Your task to perform on an android device: What's the weather going to be tomorrow? Image 0: 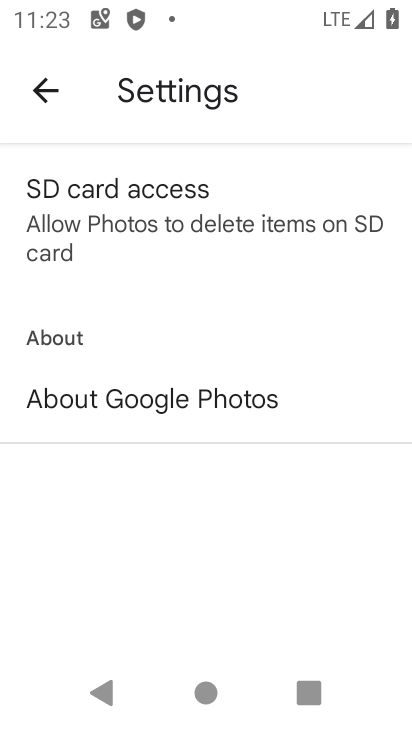
Step 0: click (34, 84)
Your task to perform on an android device: What's the weather going to be tomorrow? Image 1: 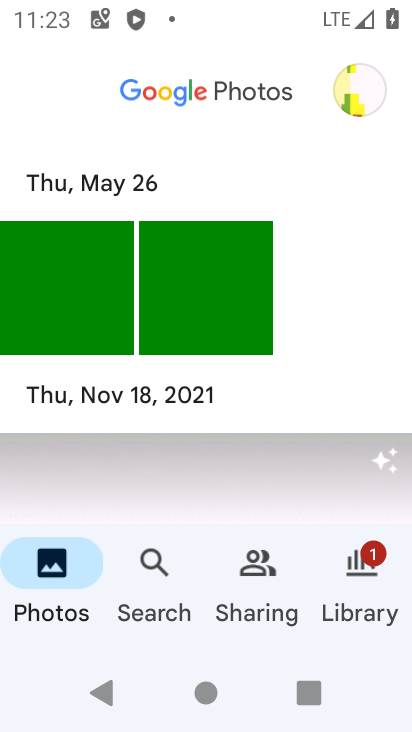
Step 1: press home button
Your task to perform on an android device: What's the weather going to be tomorrow? Image 2: 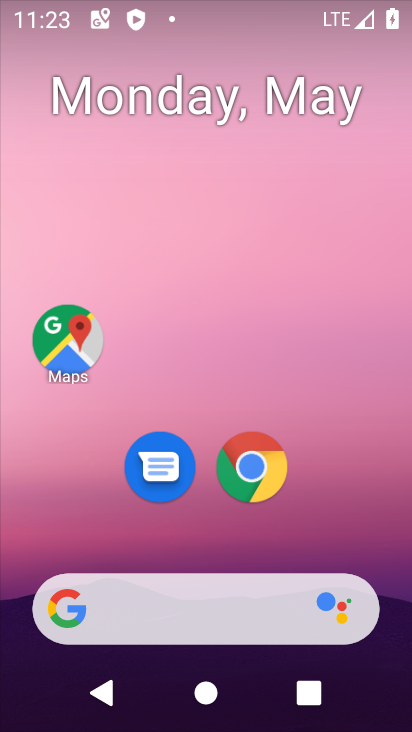
Step 2: drag from (26, 275) to (369, 335)
Your task to perform on an android device: What's the weather going to be tomorrow? Image 3: 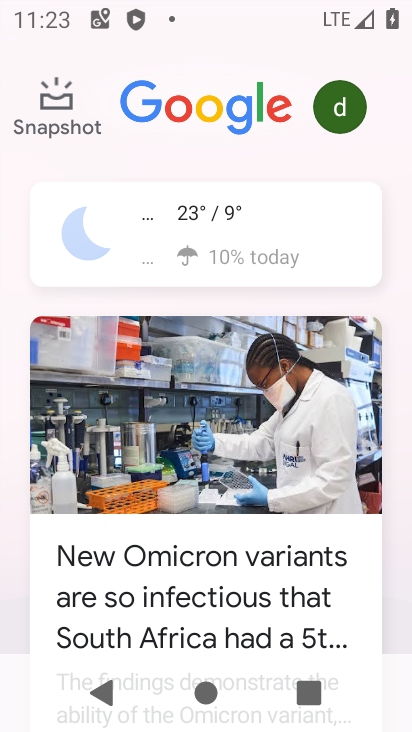
Step 3: click (203, 219)
Your task to perform on an android device: What's the weather going to be tomorrow? Image 4: 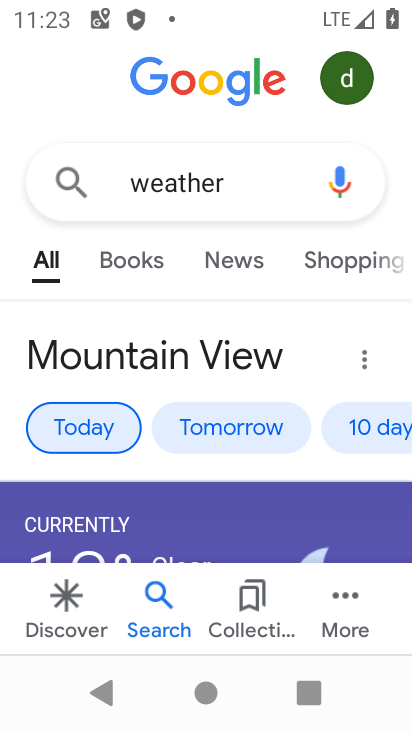
Step 4: click (218, 419)
Your task to perform on an android device: What's the weather going to be tomorrow? Image 5: 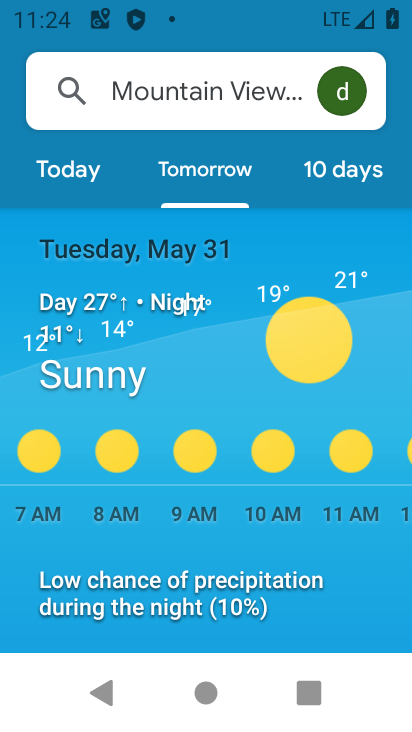
Step 5: task complete